Your task to perform on an android device: turn off airplane mode Image 0: 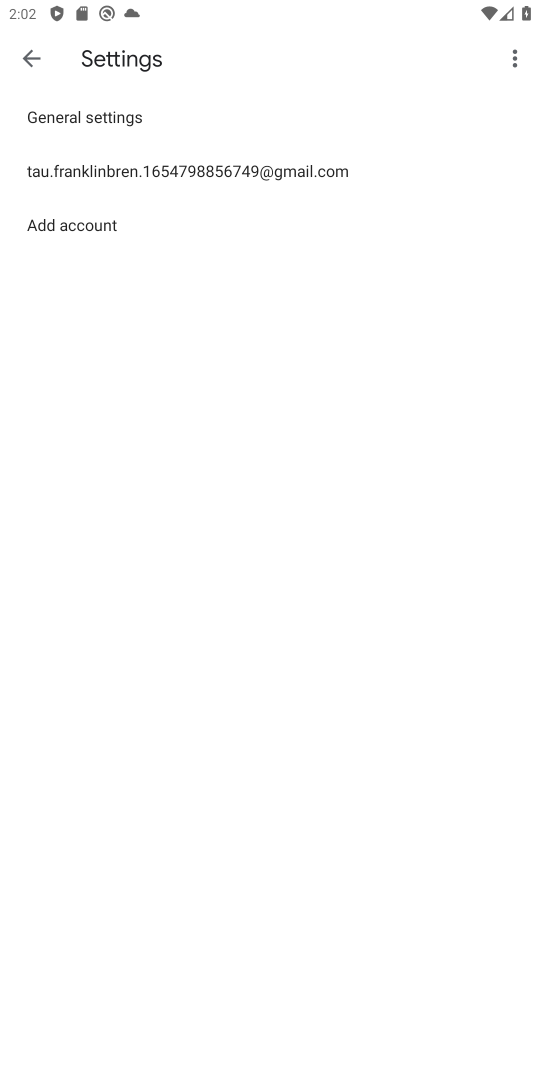
Step 0: press home button
Your task to perform on an android device: turn off airplane mode Image 1: 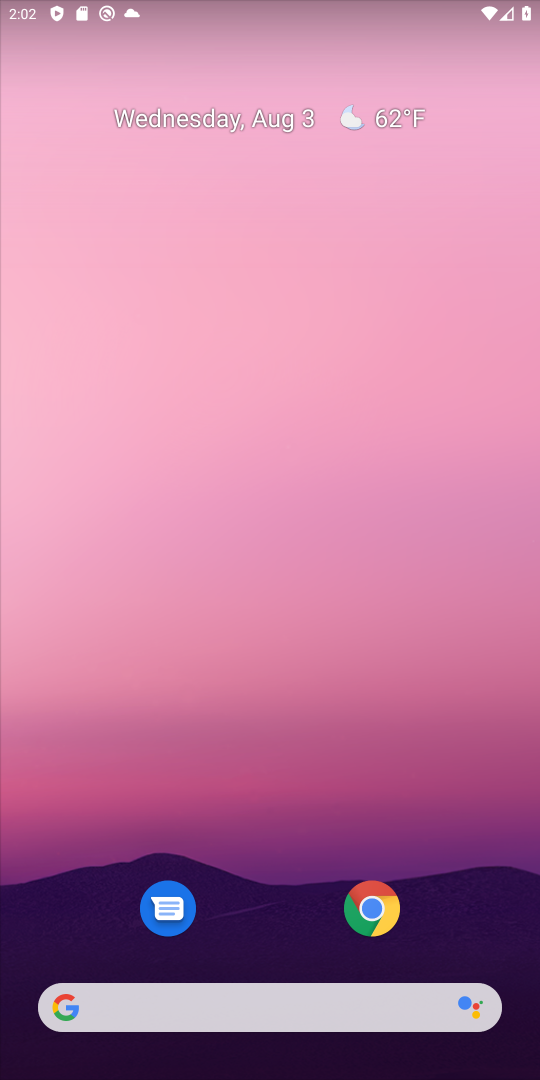
Step 1: drag from (355, 391) to (359, 166)
Your task to perform on an android device: turn off airplane mode Image 2: 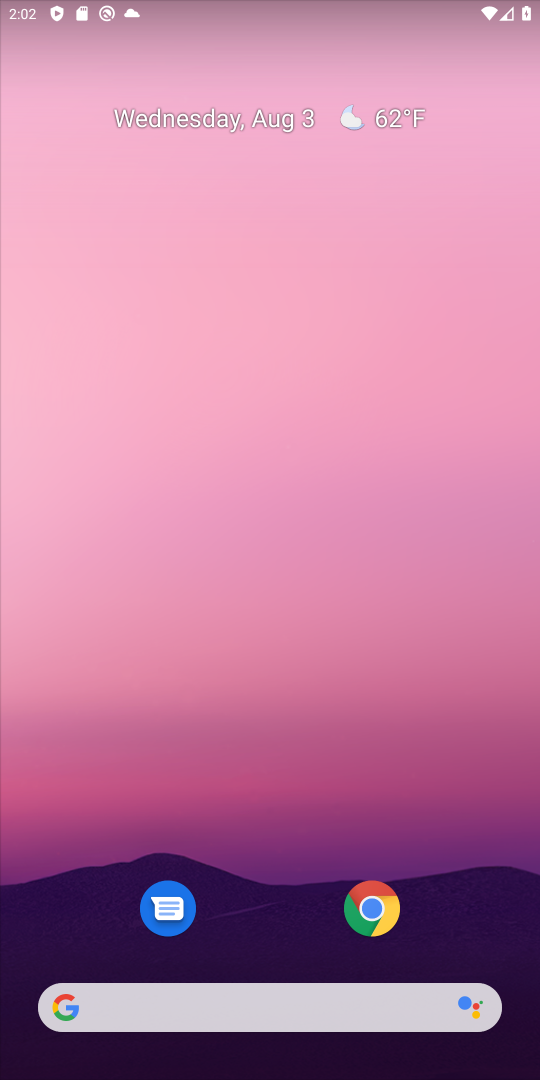
Step 2: drag from (317, 940) to (266, 196)
Your task to perform on an android device: turn off airplane mode Image 3: 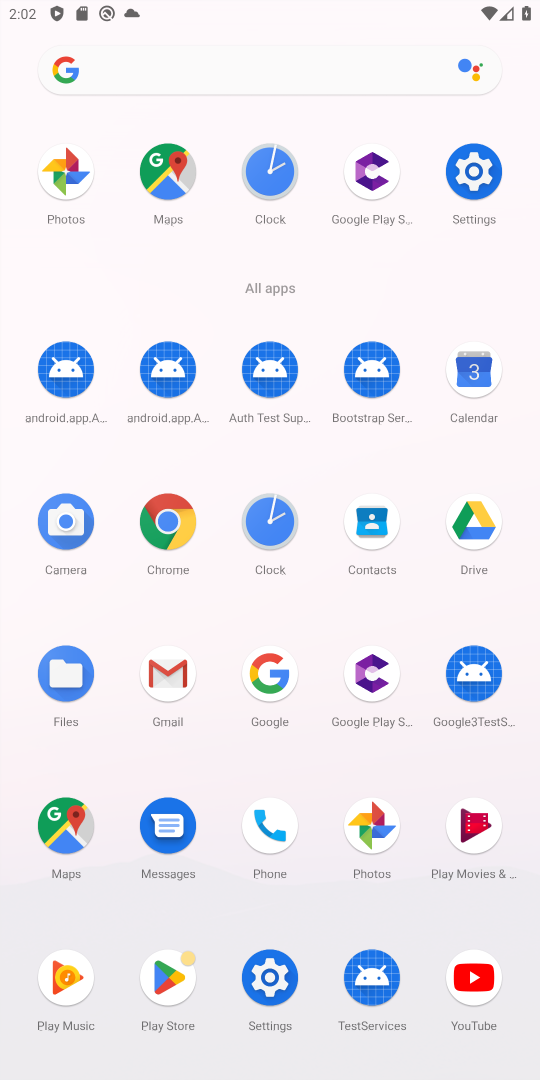
Step 3: click (490, 176)
Your task to perform on an android device: turn off airplane mode Image 4: 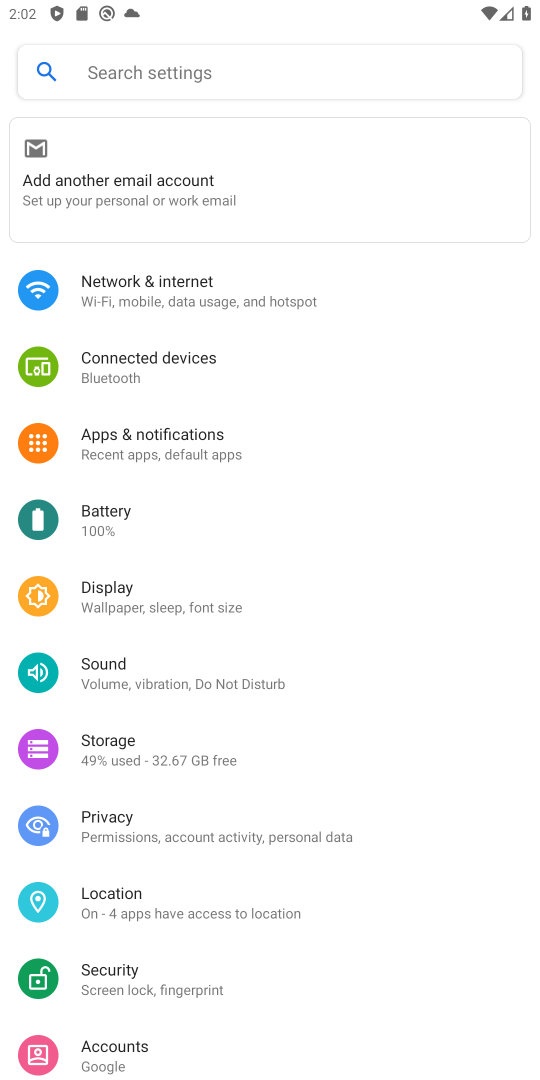
Step 4: click (286, 303)
Your task to perform on an android device: turn off airplane mode Image 5: 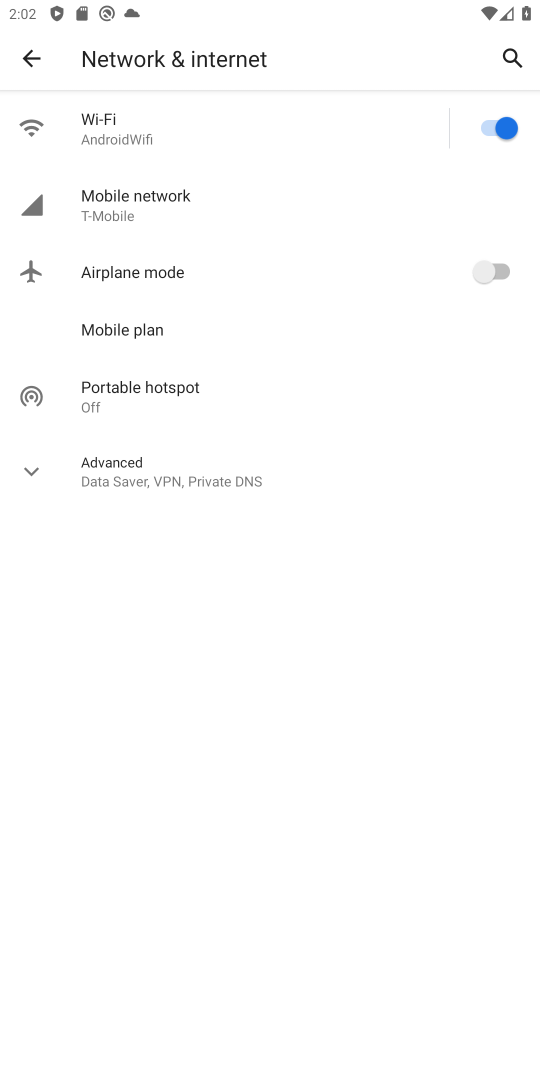
Step 5: task complete